Your task to perform on an android device: set default search engine in the chrome app Image 0: 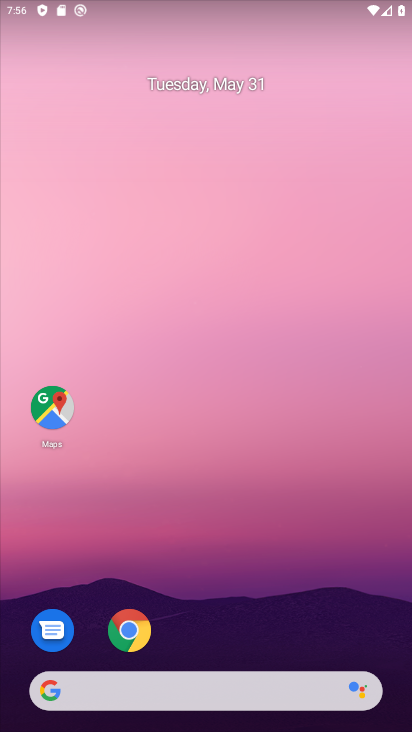
Step 0: click (130, 639)
Your task to perform on an android device: set default search engine in the chrome app Image 1: 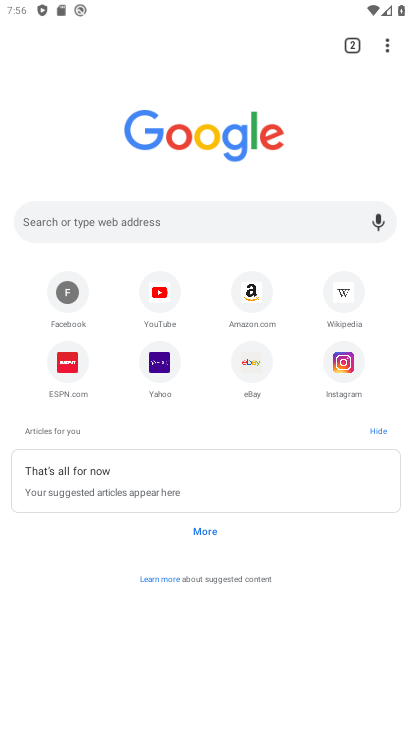
Step 1: click (393, 53)
Your task to perform on an android device: set default search engine in the chrome app Image 2: 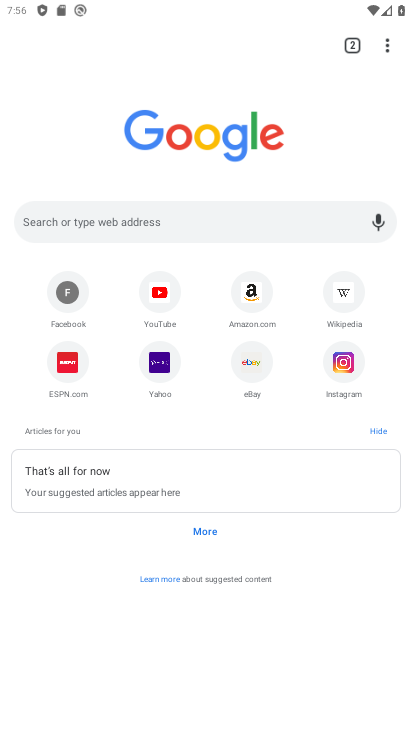
Step 2: drag from (392, 51) to (302, 376)
Your task to perform on an android device: set default search engine in the chrome app Image 3: 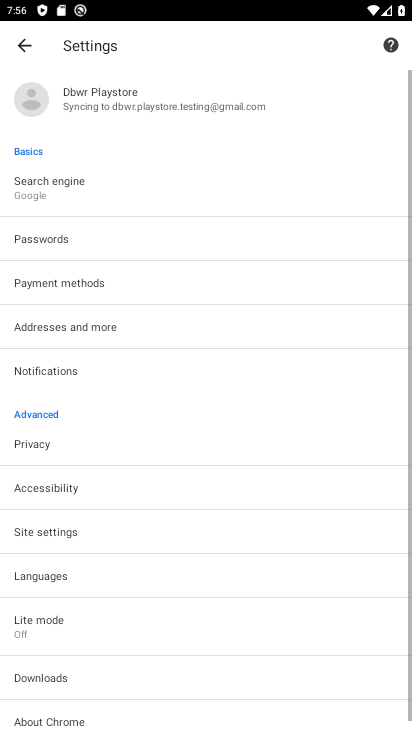
Step 3: click (69, 197)
Your task to perform on an android device: set default search engine in the chrome app Image 4: 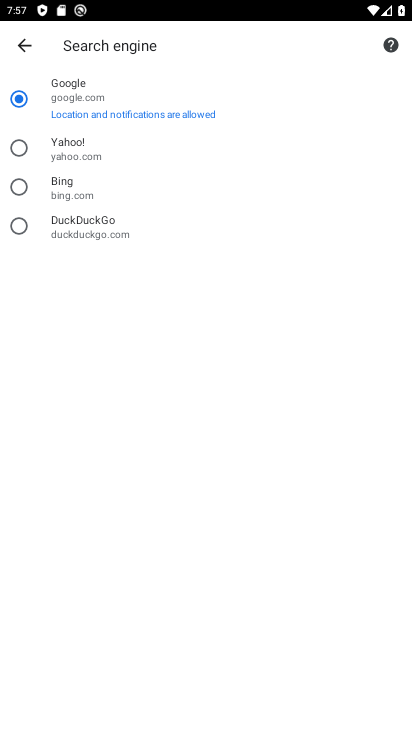
Step 4: click (16, 97)
Your task to perform on an android device: set default search engine in the chrome app Image 5: 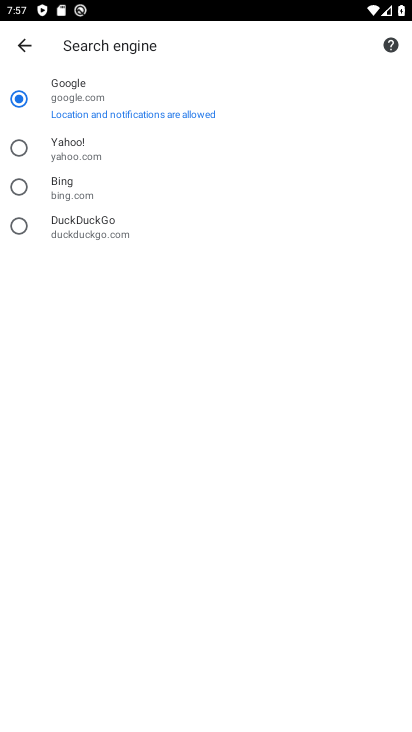
Step 5: task complete